Your task to perform on an android device: turn off sleep mode Image 0: 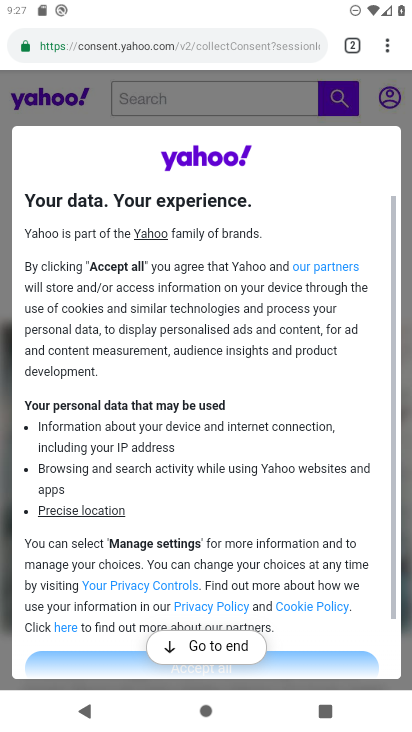
Step 0: drag from (135, 11) to (152, 585)
Your task to perform on an android device: turn off sleep mode Image 1: 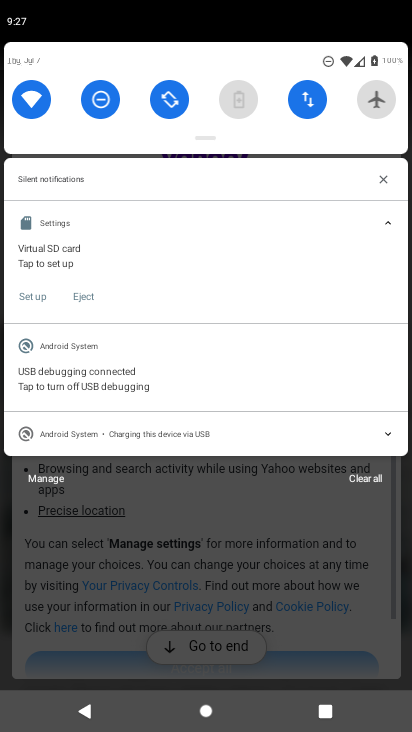
Step 1: drag from (186, 48) to (216, 525)
Your task to perform on an android device: turn off sleep mode Image 2: 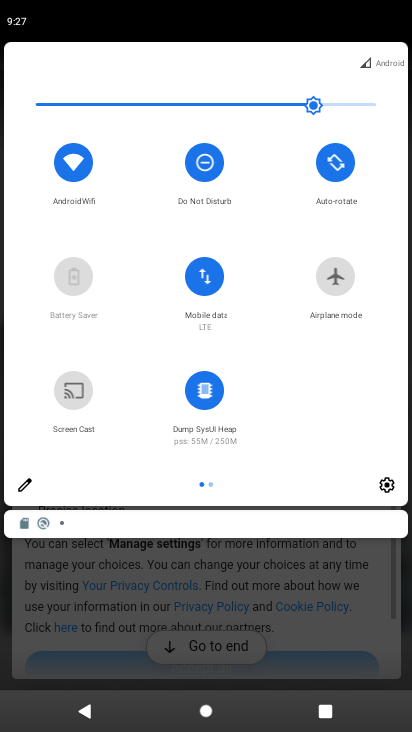
Step 2: click (388, 492)
Your task to perform on an android device: turn off sleep mode Image 3: 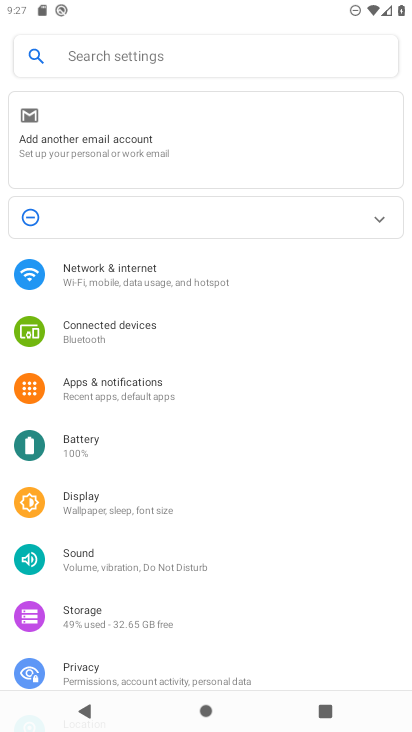
Step 3: task complete